Your task to perform on an android device: allow cookies in the chrome app Image 0: 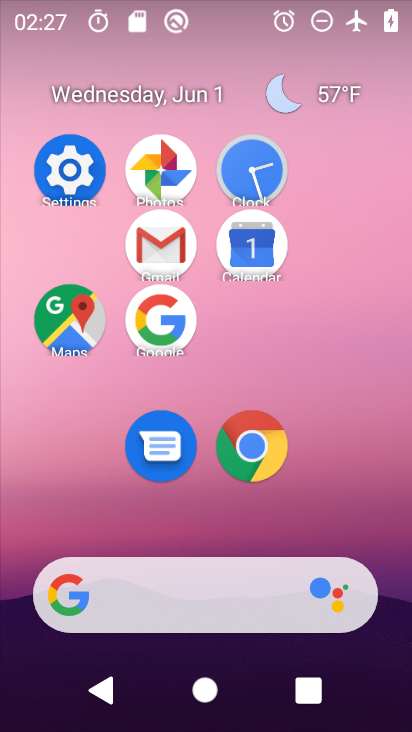
Step 0: click (245, 448)
Your task to perform on an android device: allow cookies in the chrome app Image 1: 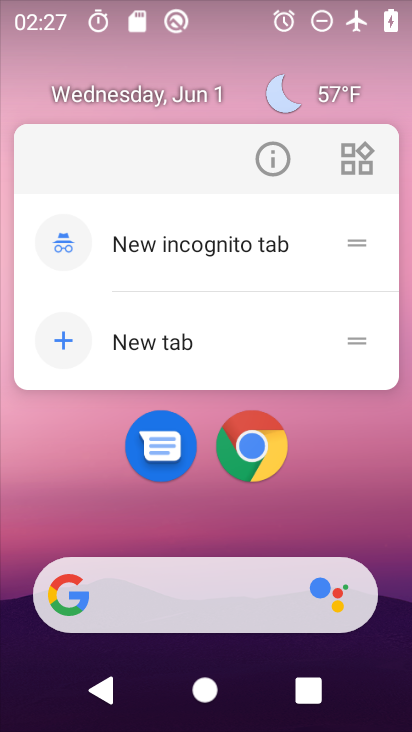
Step 1: click (275, 425)
Your task to perform on an android device: allow cookies in the chrome app Image 2: 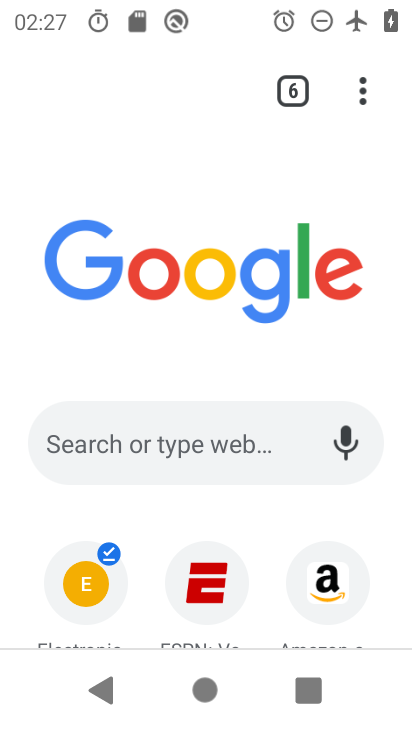
Step 2: click (346, 98)
Your task to perform on an android device: allow cookies in the chrome app Image 3: 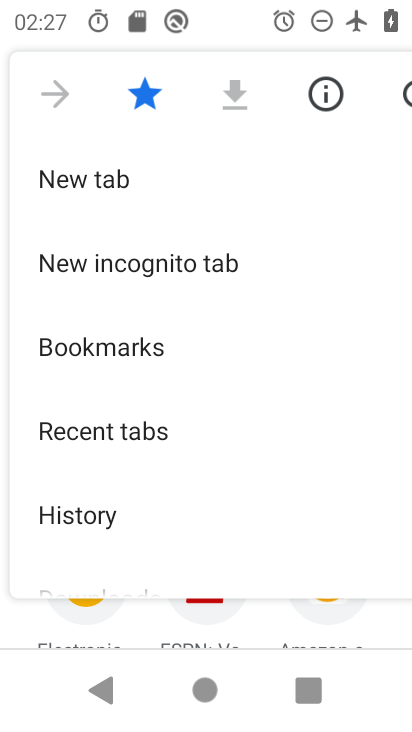
Step 3: drag from (255, 488) to (308, 81)
Your task to perform on an android device: allow cookies in the chrome app Image 4: 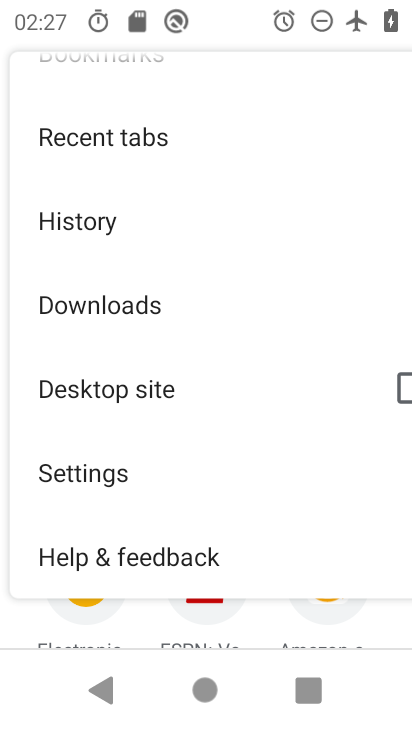
Step 4: click (251, 447)
Your task to perform on an android device: allow cookies in the chrome app Image 5: 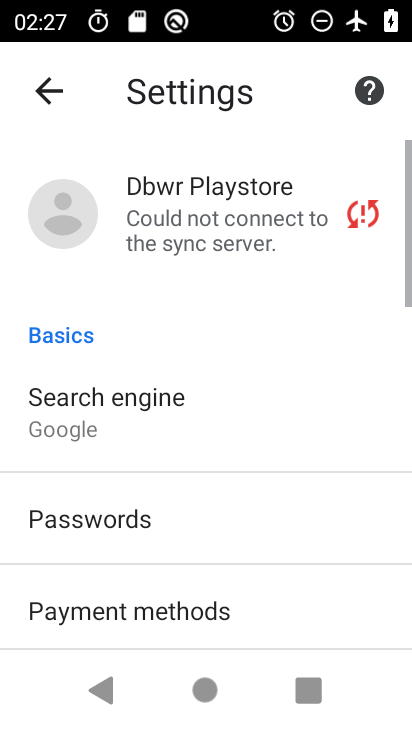
Step 5: drag from (251, 438) to (323, 38)
Your task to perform on an android device: allow cookies in the chrome app Image 6: 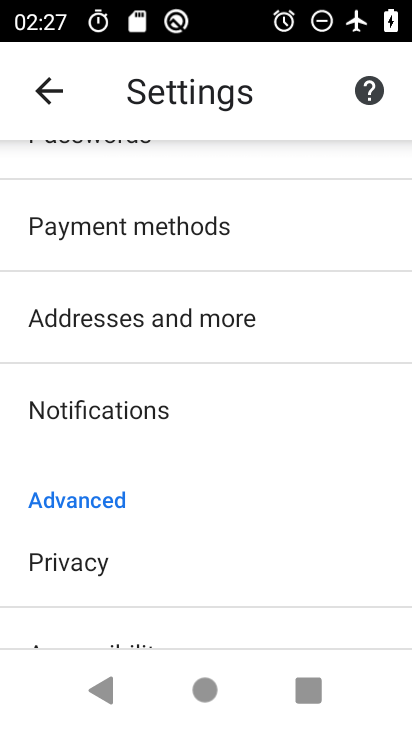
Step 6: drag from (263, 473) to (318, 104)
Your task to perform on an android device: allow cookies in the chrome app Image 7: 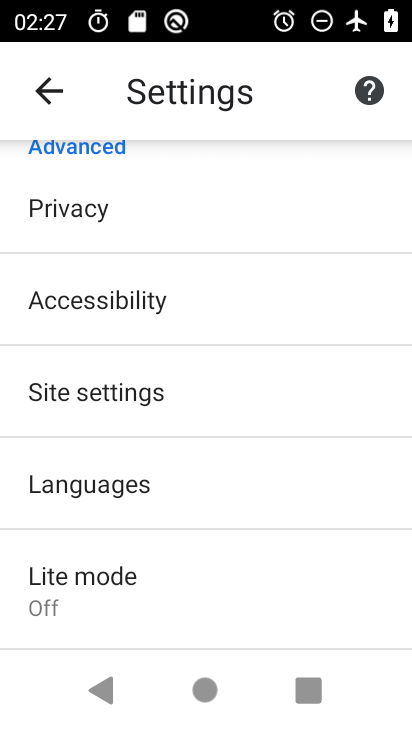
Step 7: drag from (226, 515) to (267, 141)
Your task to perform on an android device: allow cookies in the chrome app Image 8: 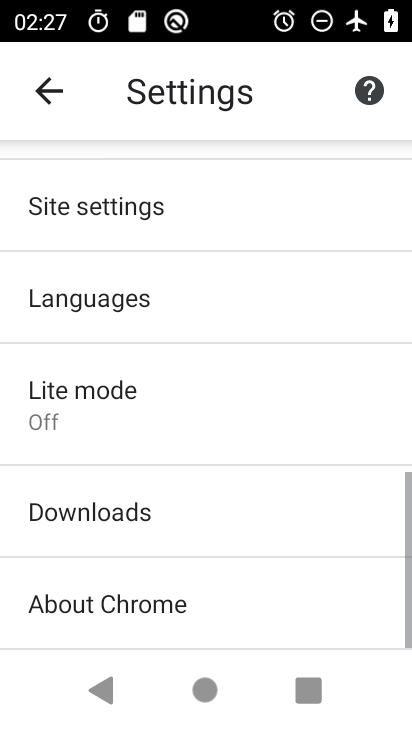
Step 8: drag from (186, 517) to (250, 146)
Your task to perform on an android device: allow cookies in the chrome app Image 9: 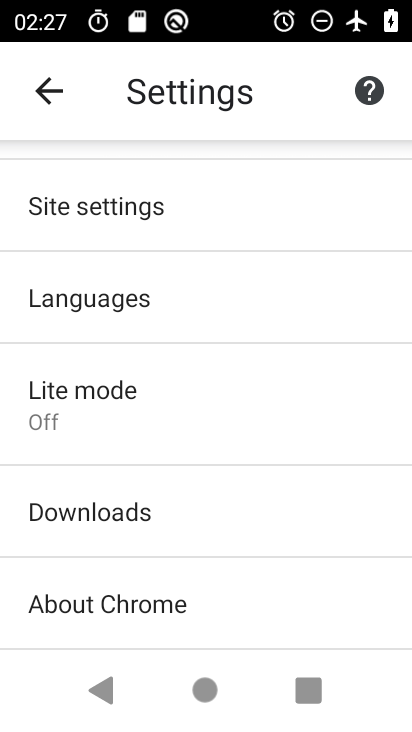
Step 9: click (225, 203)
Your task to perform on an android device: allow cookies in the chrome app Image 10: 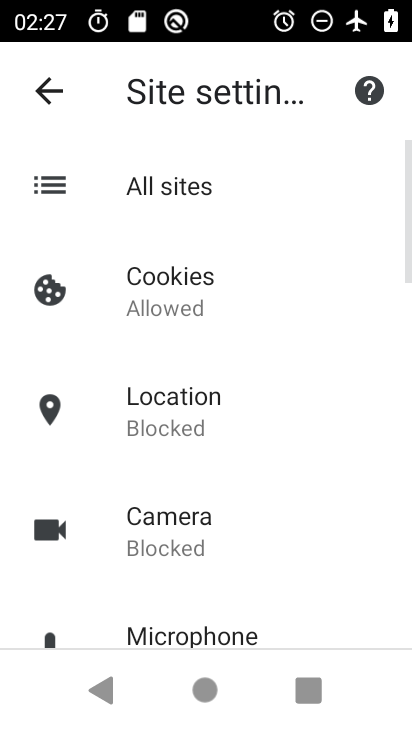
Step 10: click (253, 305)
Your task to perform on an android device: allow cookies in the chrome app Image 11: 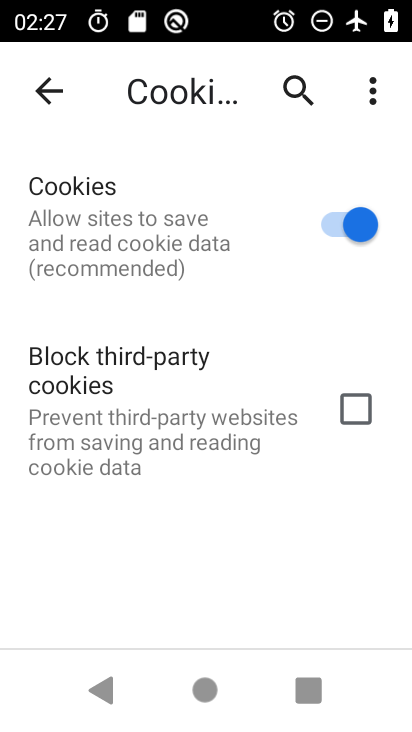
Step 11: task complete